Your task to perform on an android device: Go to Google maps Image 0: 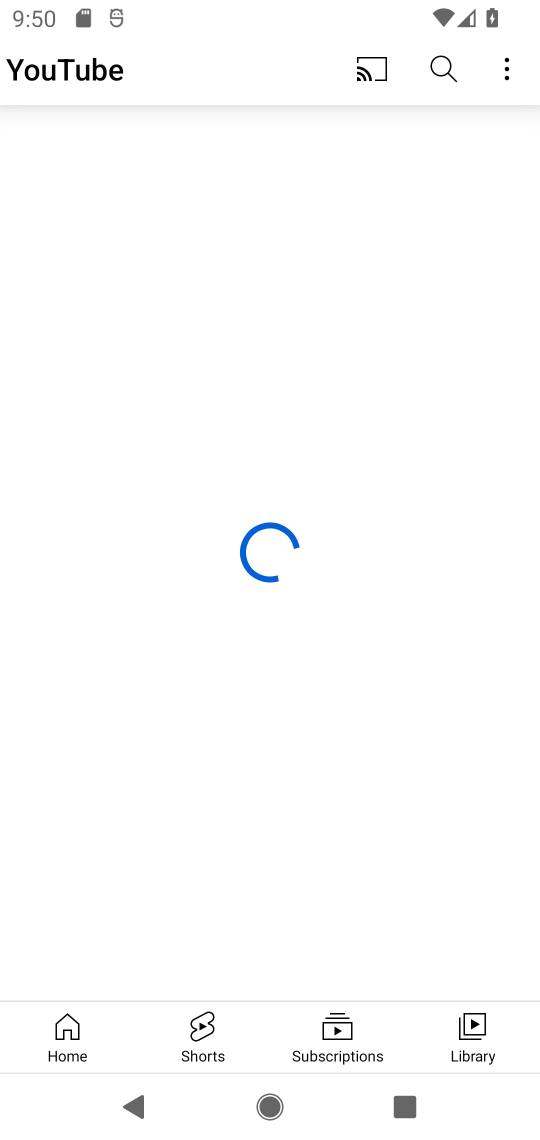
Step 0: press home button
Your task to perform on an android device: Go to Google maps Image 1: 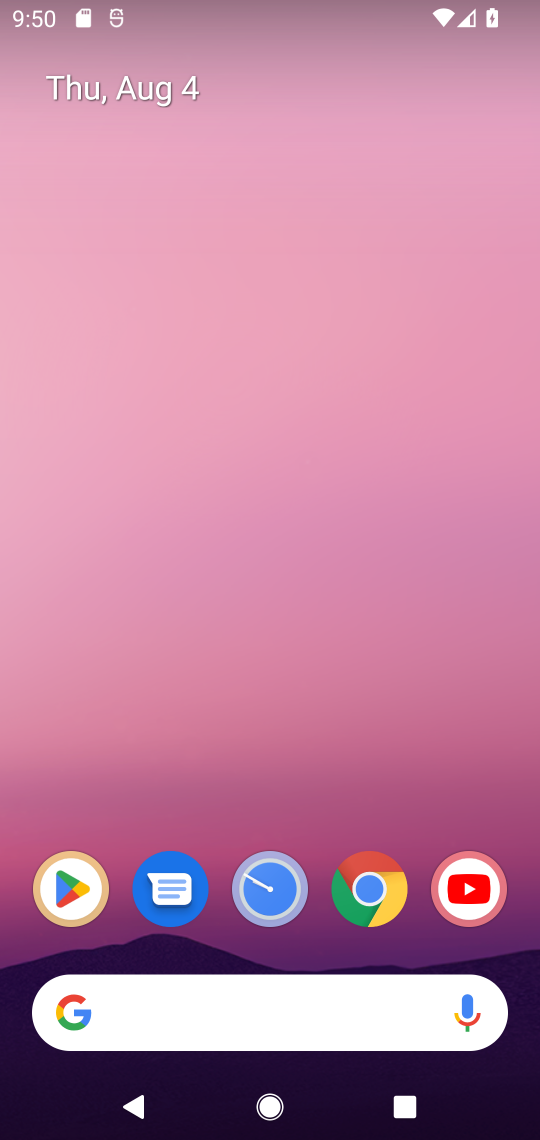
Step 1: drag from (319, 786) to (376, 291)
Your task to perform on an android device: Go to Google maps Image 2: 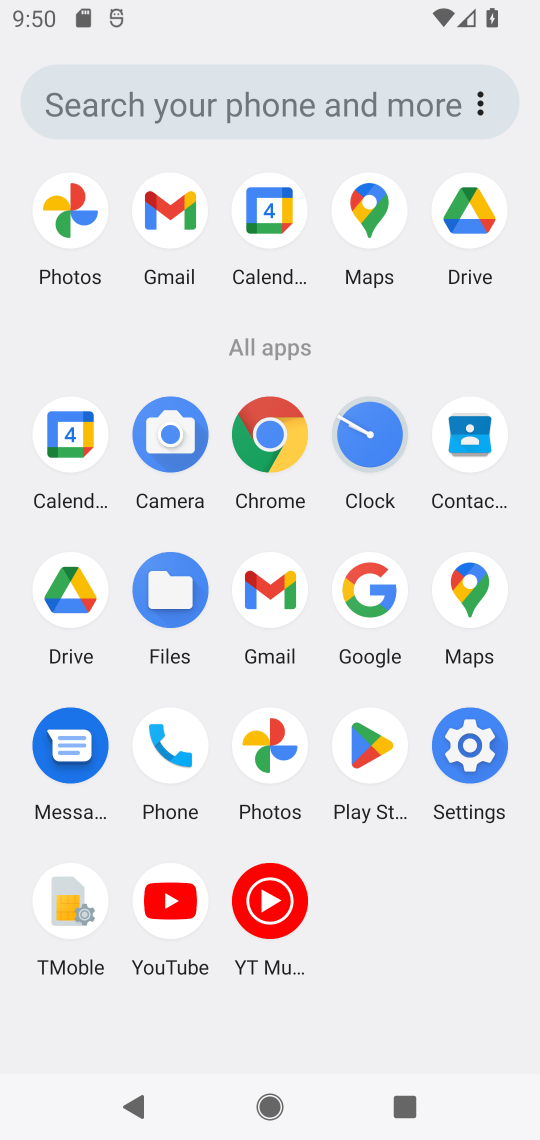
Step 2: click (480, 598)
Your task to perform on an android device: Go to Google maps Image 3: 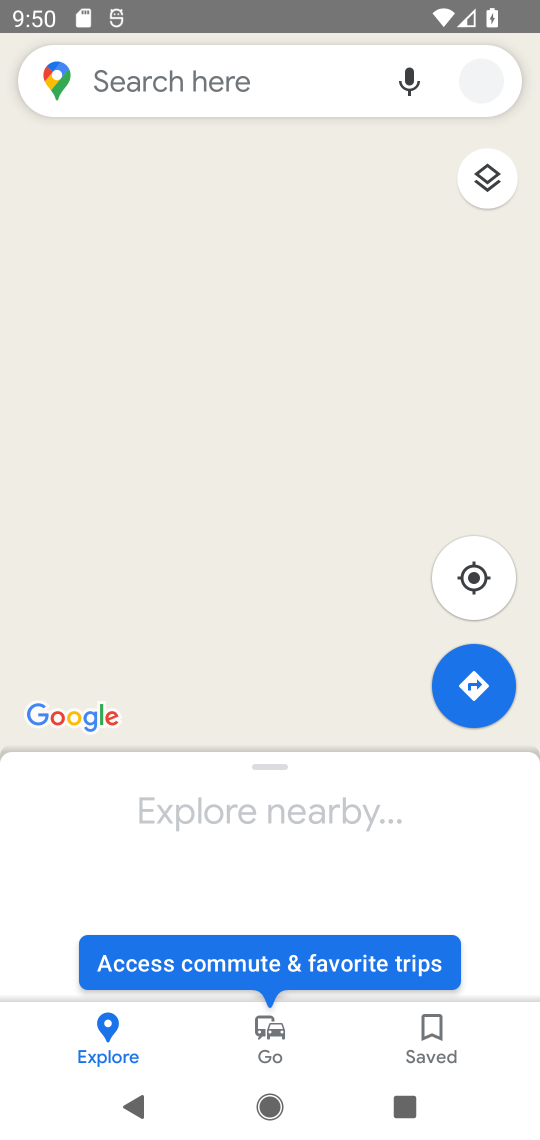
Step 3: task complete